Your task to perform on an android device: What's the latest video from IGN? Image 0: 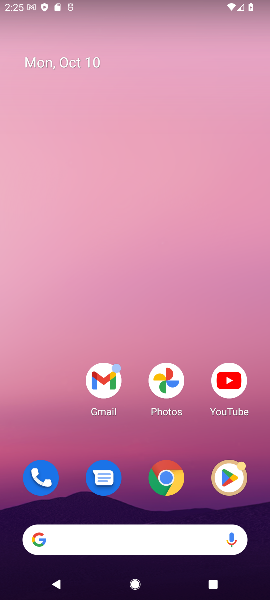
Step 0: click (169, 475)
Your task to perform on an android device: What's the latest video from IGN? Image 1: 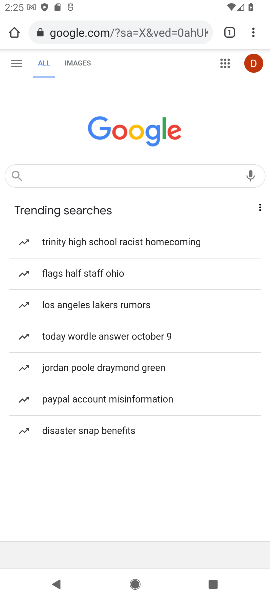
Step 1: click (185, 174)
Your task to perform on an android device: What's the latest video from IGN? Image 2: 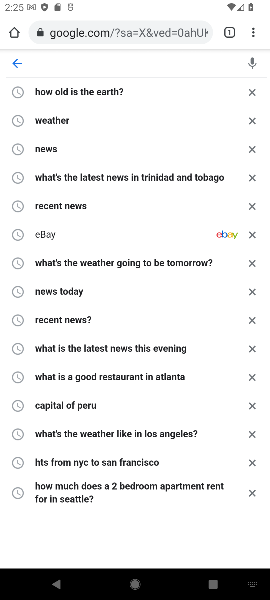
Step 2: type "What's the price of the Samsung TV?"
Your task to perform on an android device: What's the latest video from IGN? Image 3: 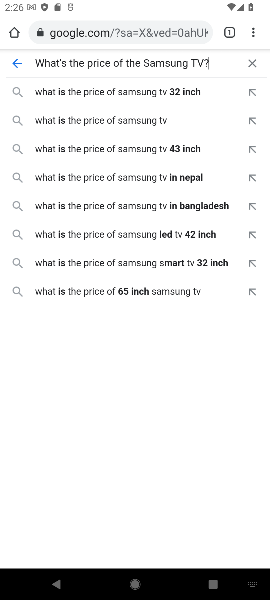
Step 3: click (180, 67)
Your task to perform on an android device: What's the latest video from IGN? Image 4: 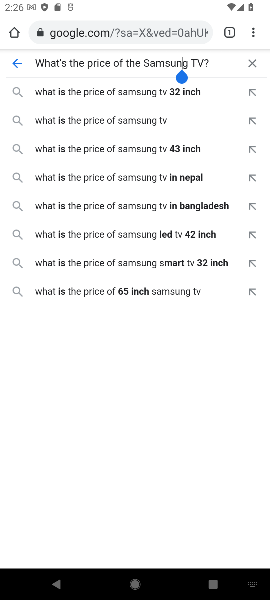
Step 4: click (180, 67)
Your task to perform on an android device: What's the latest video from IGN? Image 5: 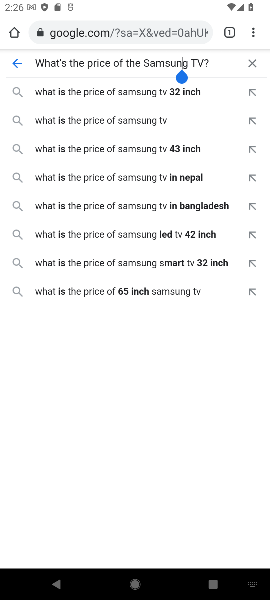
Step 5: click (150, 65)
Your task to perform on an android device: What's the latest video from IGN? Image 6: 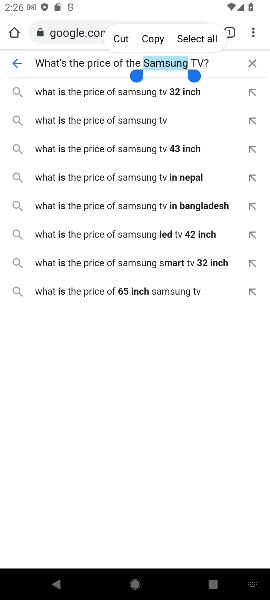
Step 6: click (81, 128)
Your task to perform on an android device: What's the latest video from IGN? Image 7: 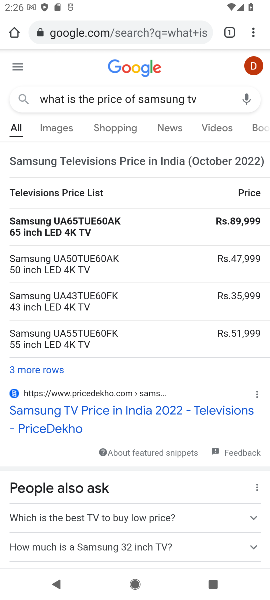
Step 7: task complete